Your task to perform on an android device: turn on translation in the chrome app Image 0: 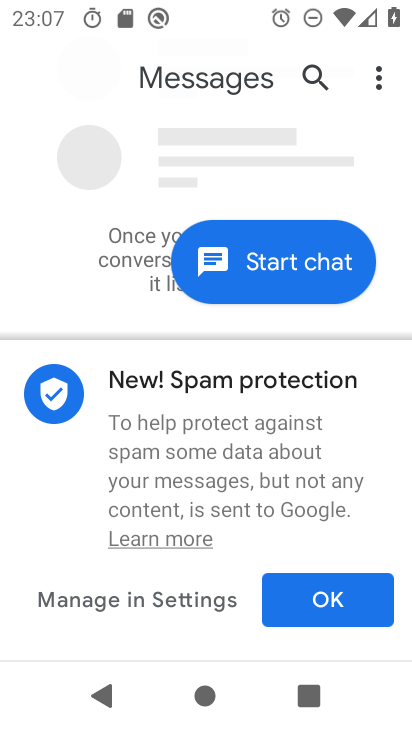
Step 0: press home button
Your task to perform on an android device: turn on translation in the chrome app Image 1: 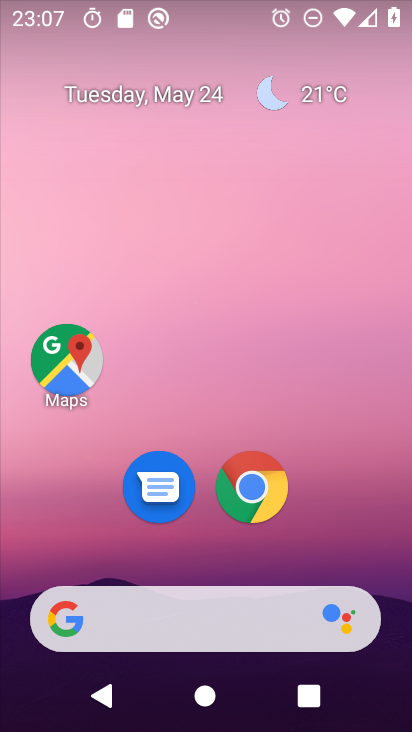
Step 1: click (361, 579)
Your task to perform on an android device: turn on translation in the chrome app Image 2: 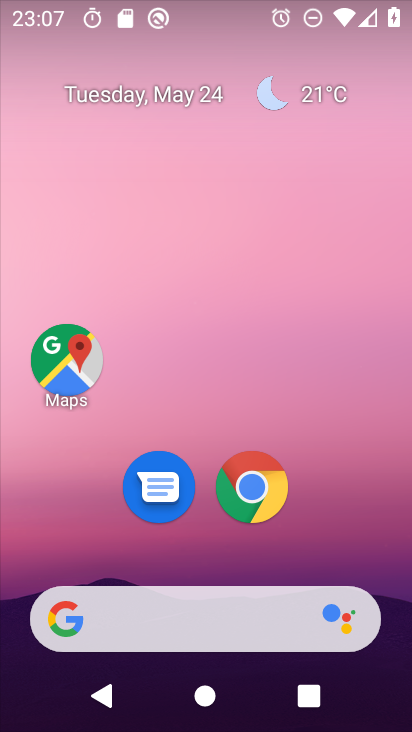
Step 2: click (255, 479)
Your task to perform on an android device: turn on translation in the chrome app Image 3: 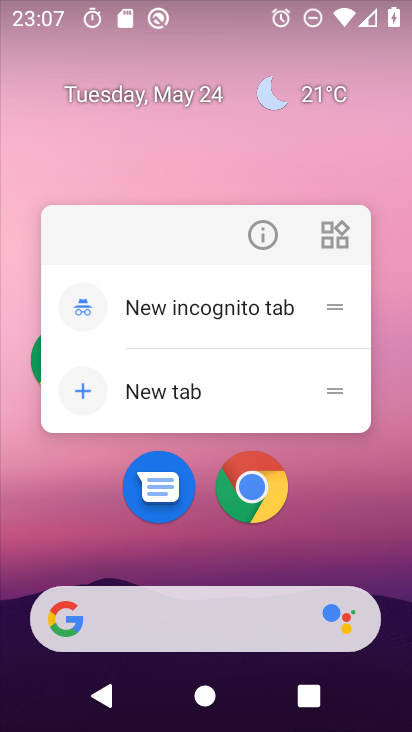
Step 3: click (258, 500)
Your task to perform on an android device: turn on translation in the chrome app Image 4: 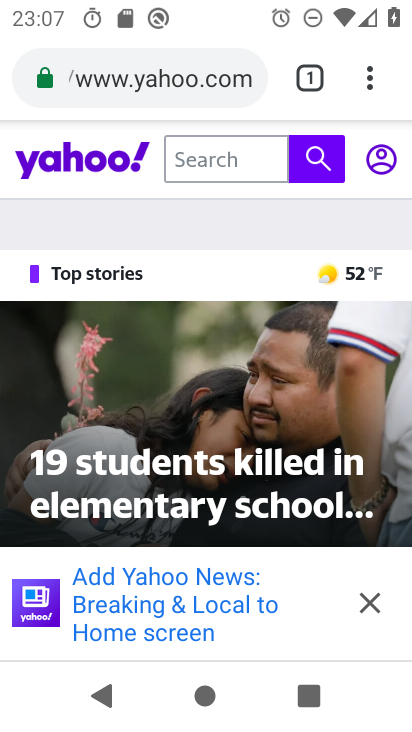
Step 4: click (369, 78)
Your task to perform on an android device: turn on translation in the chrome app Image 5: 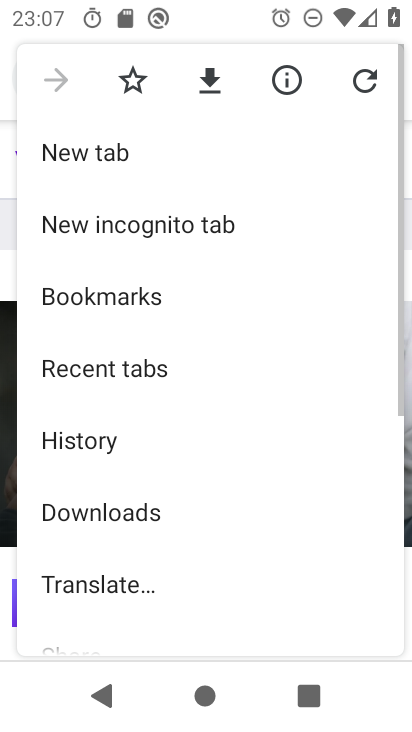
Step 5: drag from (178, 535) to (180, 51)
Your task to perform on an android device: turn on translation in the chrome app Image 6: 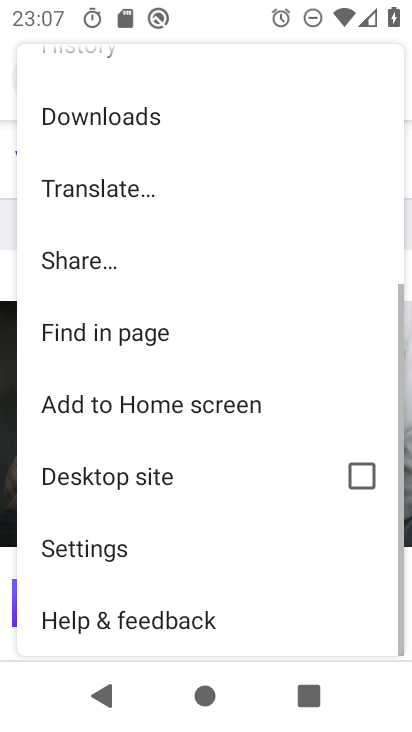
Step 6: click (102, 552)
Your task to perform on an android device: turn on translation in the chrome app Image 7: 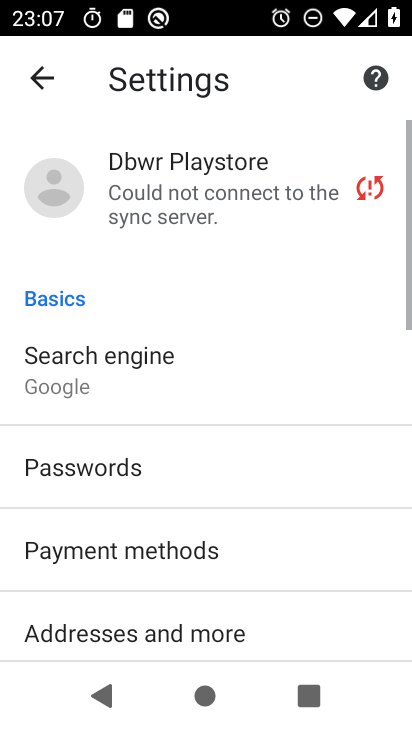
Step 7: drag from (213, 593) to (210, 119)
Your task to perform on an android device: turn on translation in the chrome app Image 8: 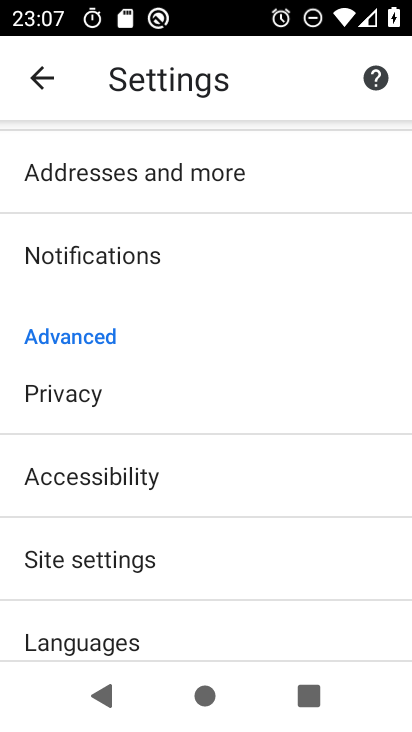
Step 8: drag from (154, 559) to (164, 190)
Your task to perform on an android device: turn on translation in the chrome app Image 9: 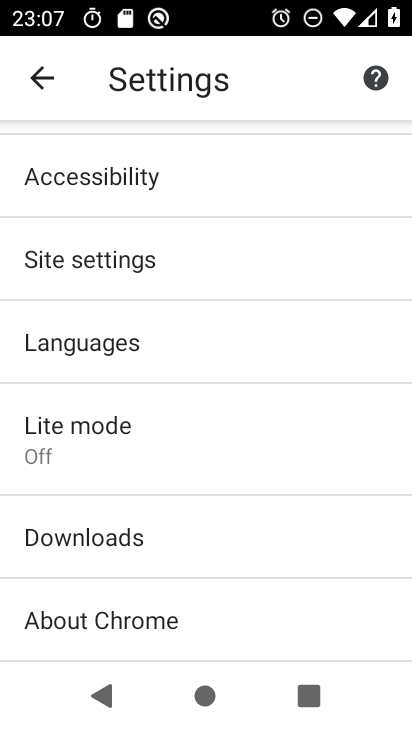
Step 9: click (99, 337)
Your task to perform on an android device: turn on translation in the chrome app Image 10: 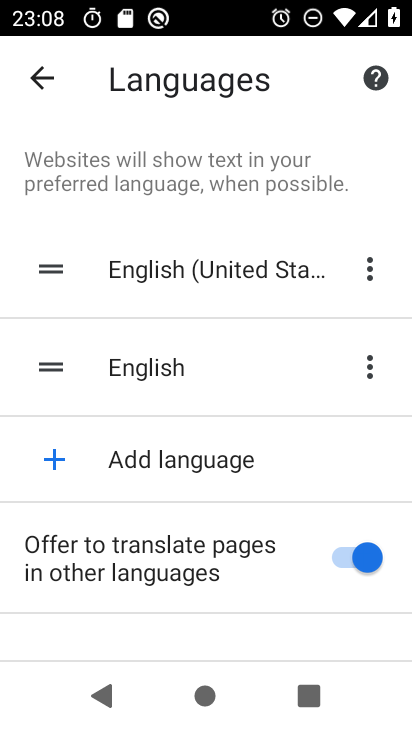
Step 10: task complete